Your task to perform on an android device: toggle translation in the chrome app Image 0: 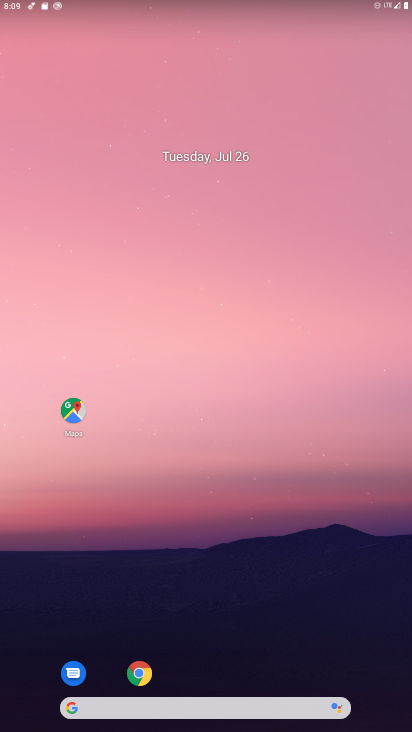
Step 0: drag from (383, 668) to (157, 25)
Your task to perform on an android device: toggle translation in the chrome app Image 1: 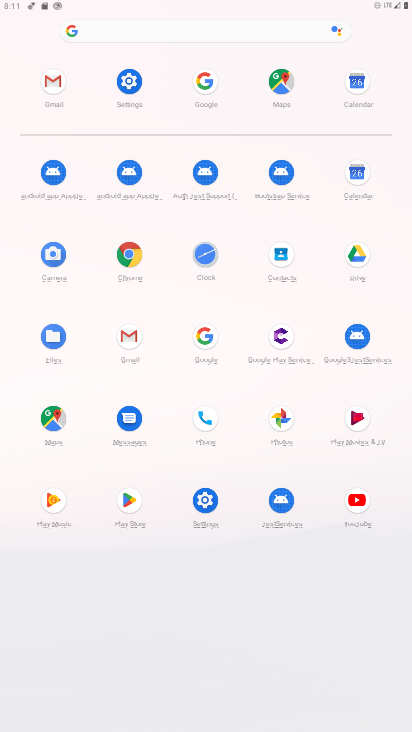
Step 1: click (127, 244)
Your task to perform on an android device: toggle translation in the chrome app Image 2: 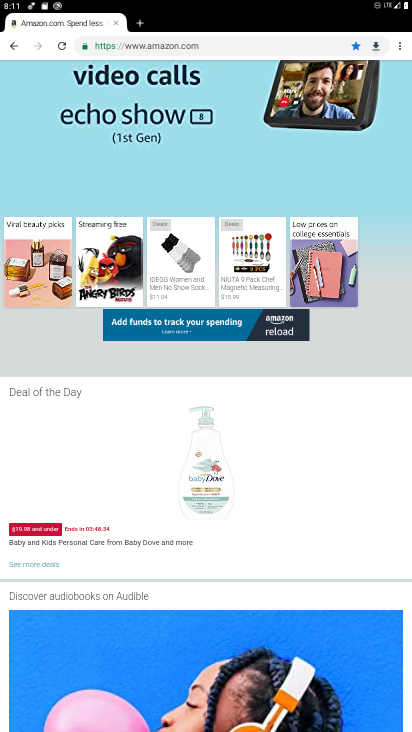
Step 2: click (393, 44)
Your task to perform on an android device: toggle translation in the chrome app Image 3: 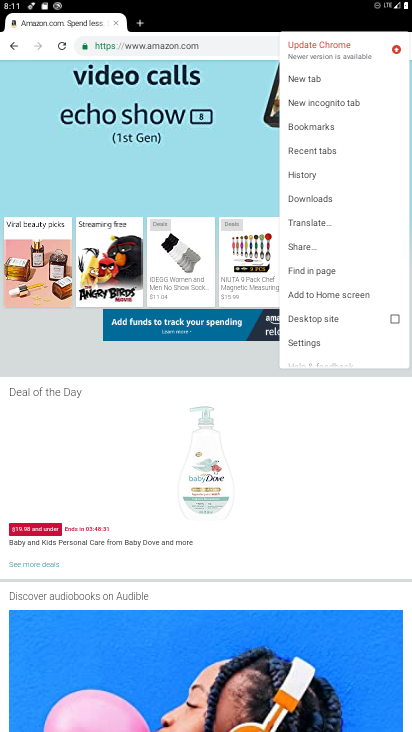
Step 3: click (309, 341)
Your task to perform on an android device: toggle translation in the chrome app Image 4: 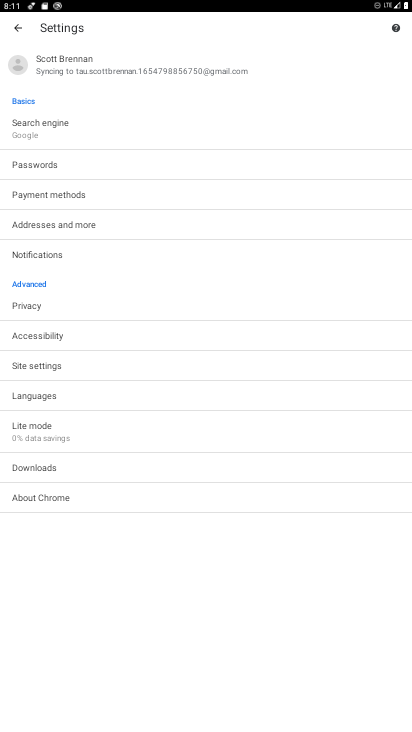
Step 4: click (71, 395)
Your task to perform on an android device: toggle translation in the chrome app Image 5: 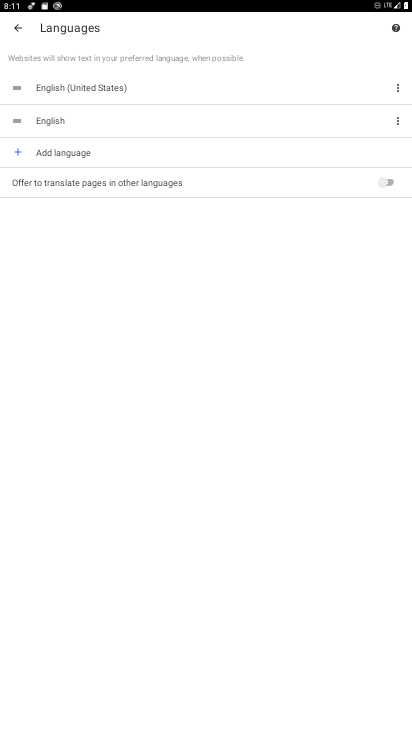
Step 5: click (361, 184)
Your task to perform on an android device: toggle translation in the chrome app Image 6: 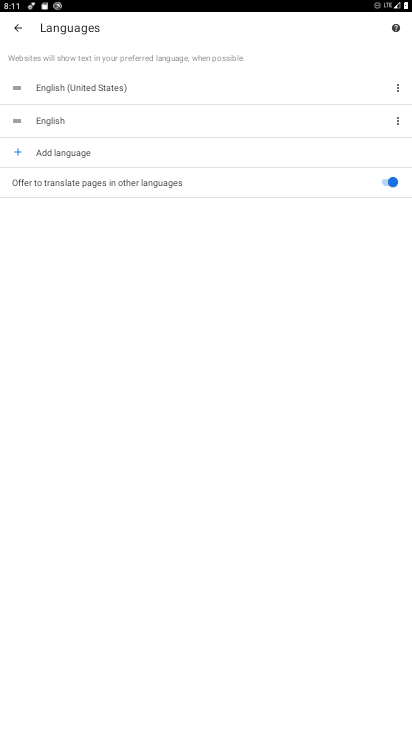
Step 6: task complete